Your task to perform on an android device: set the stopwatch Image 0: 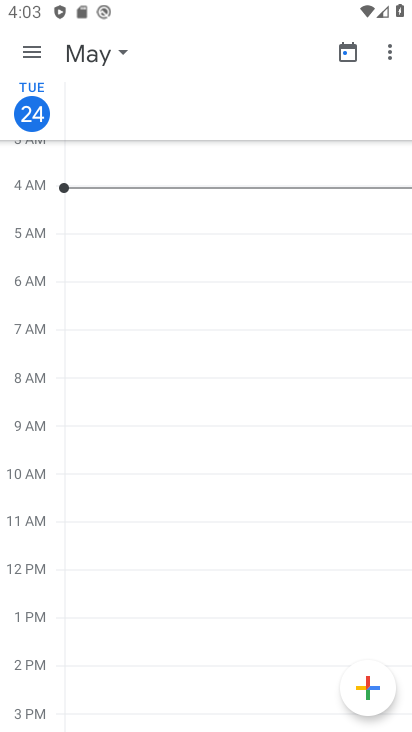
Step 0: press home button
Your task to perform on an android device: set the stopwatch Image 1: 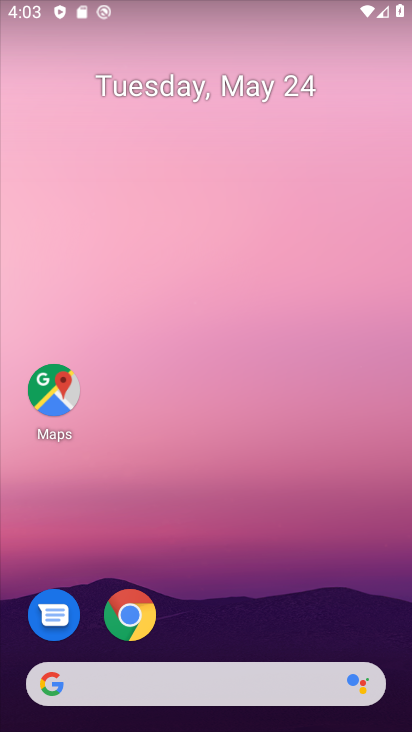
Step 1: drag from (230, 605) to (303, 121)
Your task to perform on an android device: set the stopwatch Image 2: 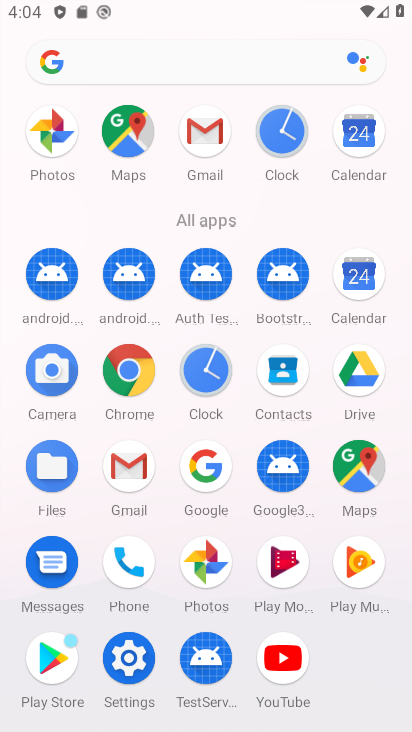
Step 2: click (211, 360)
Your task to perform on an android device: set the stopwatch Image 3: 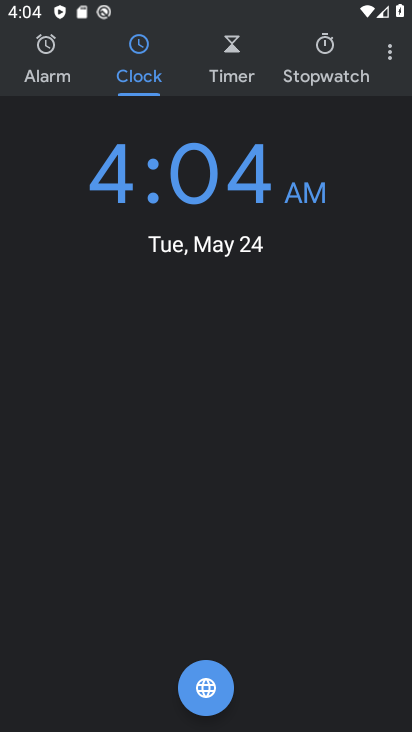
Step 3: click (340, 54)
Your task to perform on an android device: set the stopwatch Image 4: 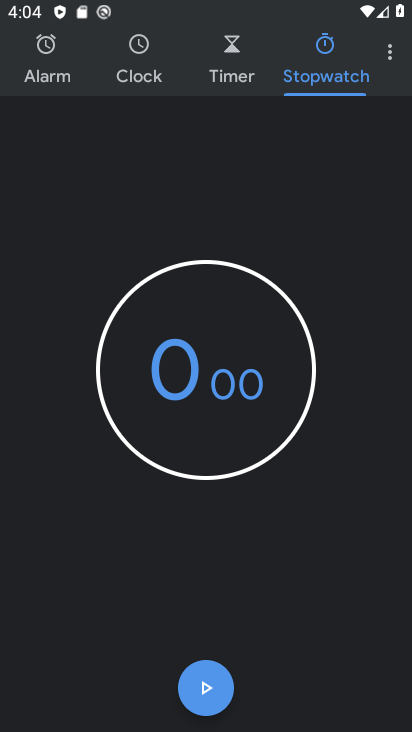
Step 4: click (223, 386)
Your task to perform on an android device: set the stopwatch Image 5: 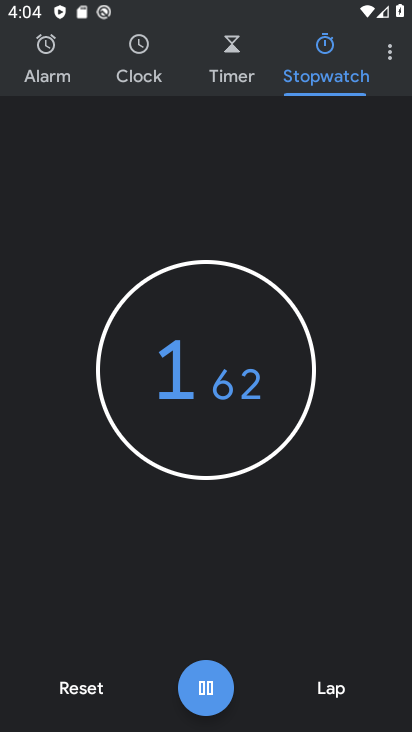
Step 5: click (218, 377)
Your task to perform on an android device: set the stopwatch Image 6: 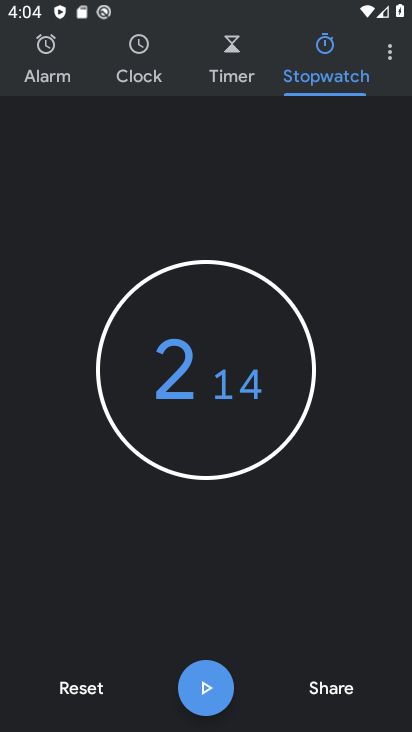
Step 6: task complete